Your task to perform on an android device: open app "Google Play services" (install if not already installed) Image 0: 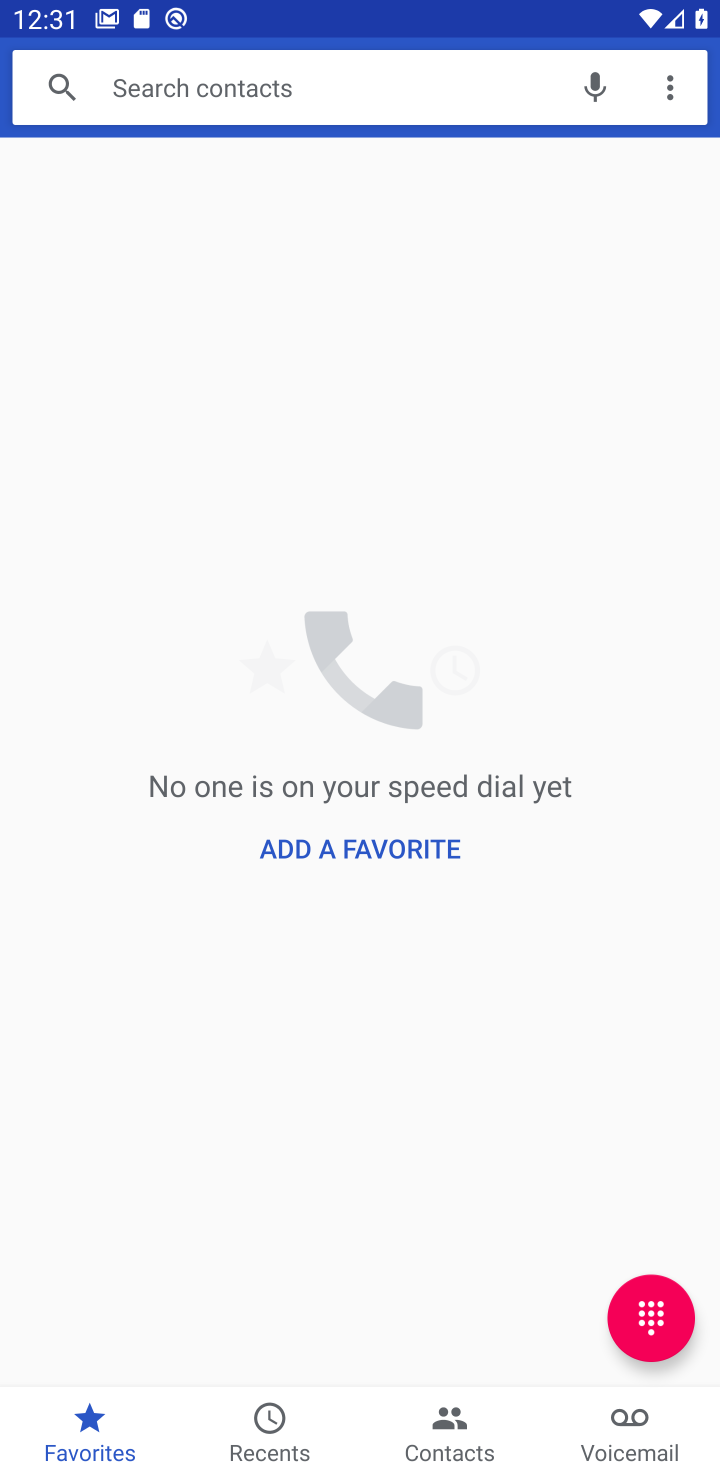
Step 0: press home button
Your task to perform on an android device: open app "Google Play services" (install if not already installed) Image 1: 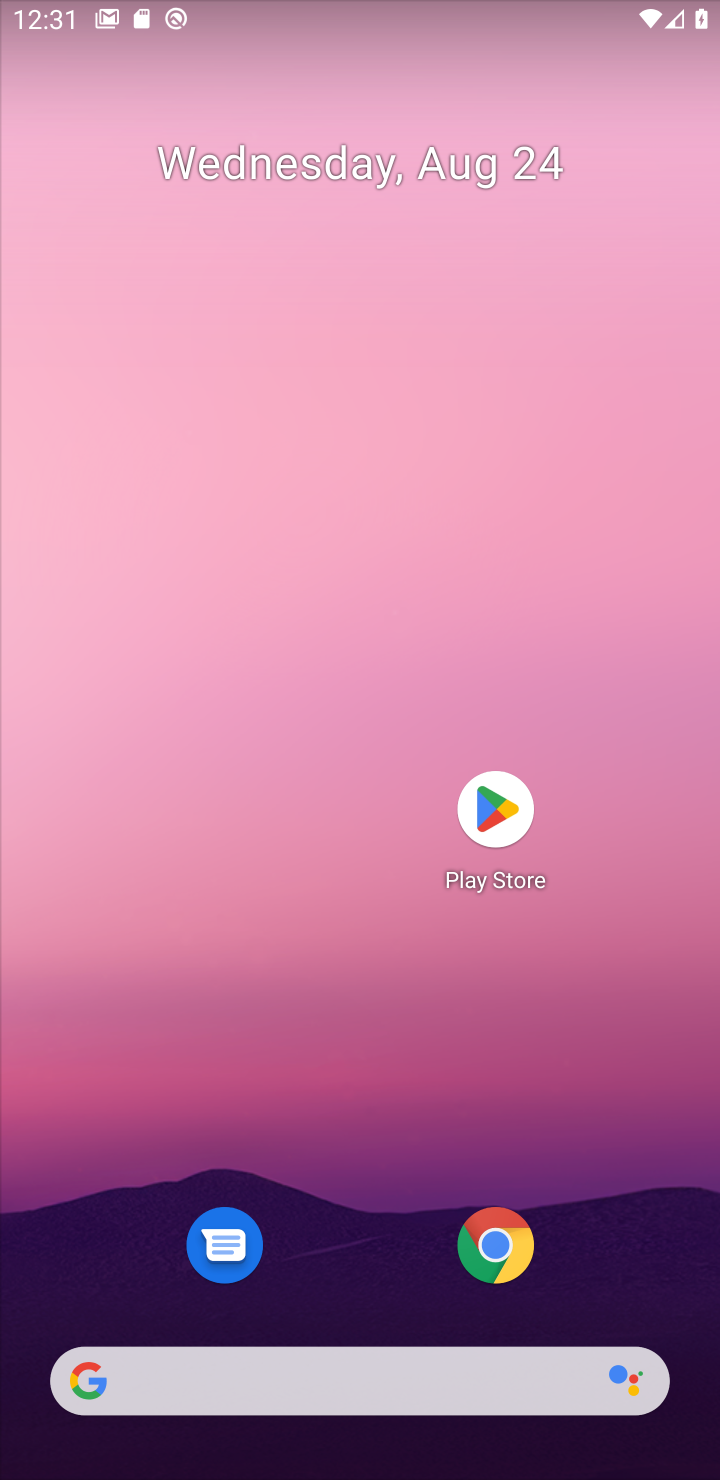
Step 1: click (487, 812)
Your task to perform on an android device: open app "Google Play services" (install if not already installed) Image 2: 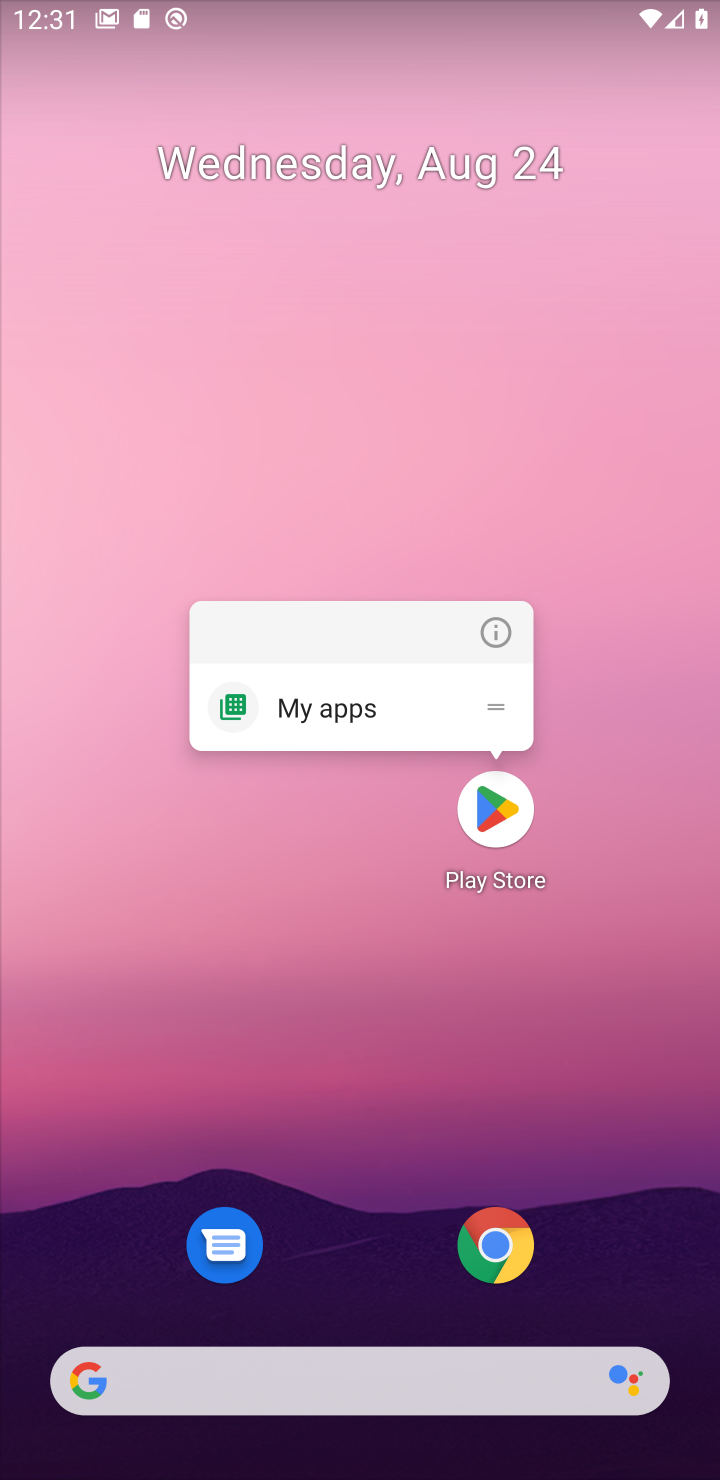
Step 2: click (487, 817)
Your task to perform on an android device: open app "Google Play services" (install if not already installed) Image 3: 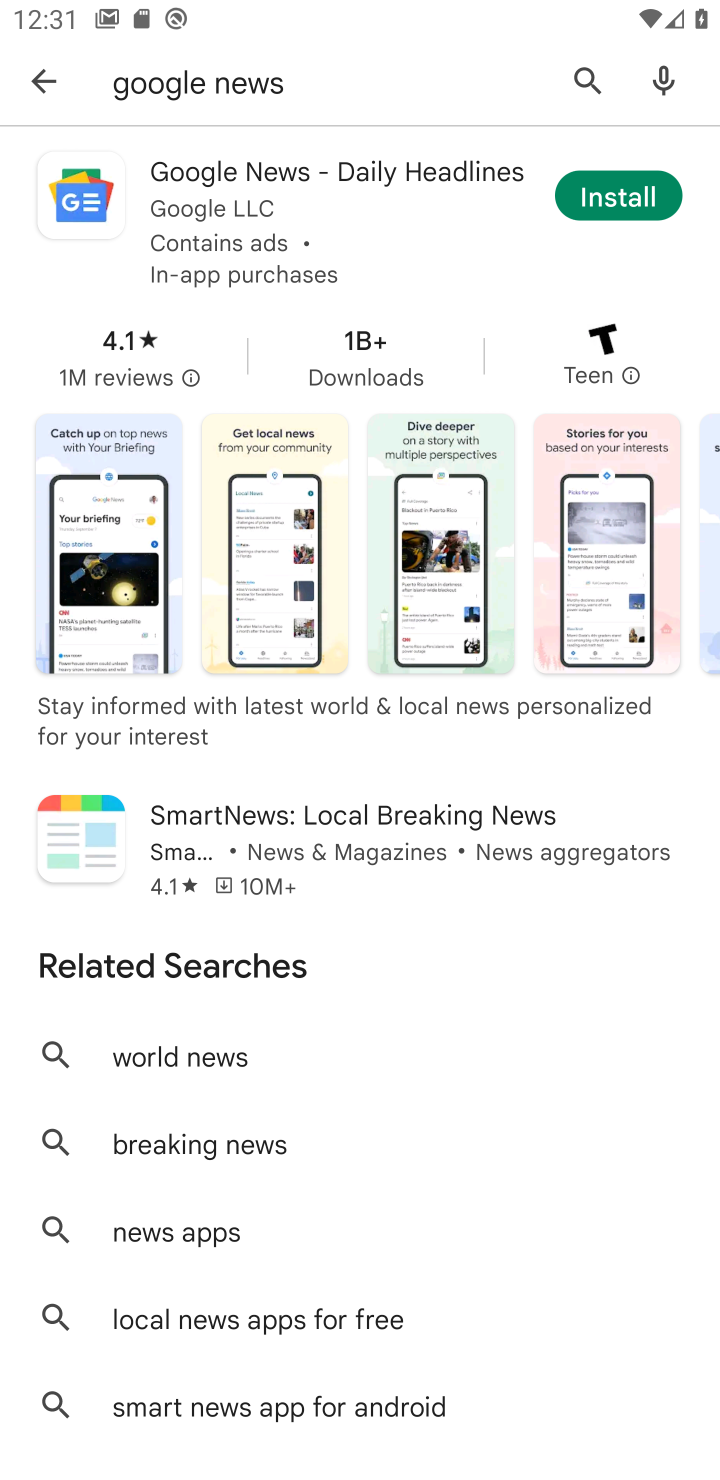
Step 3: click (582, 81)
Your task to perform on an android device: open app "Google Play services" (install if not already installed) Image 4: 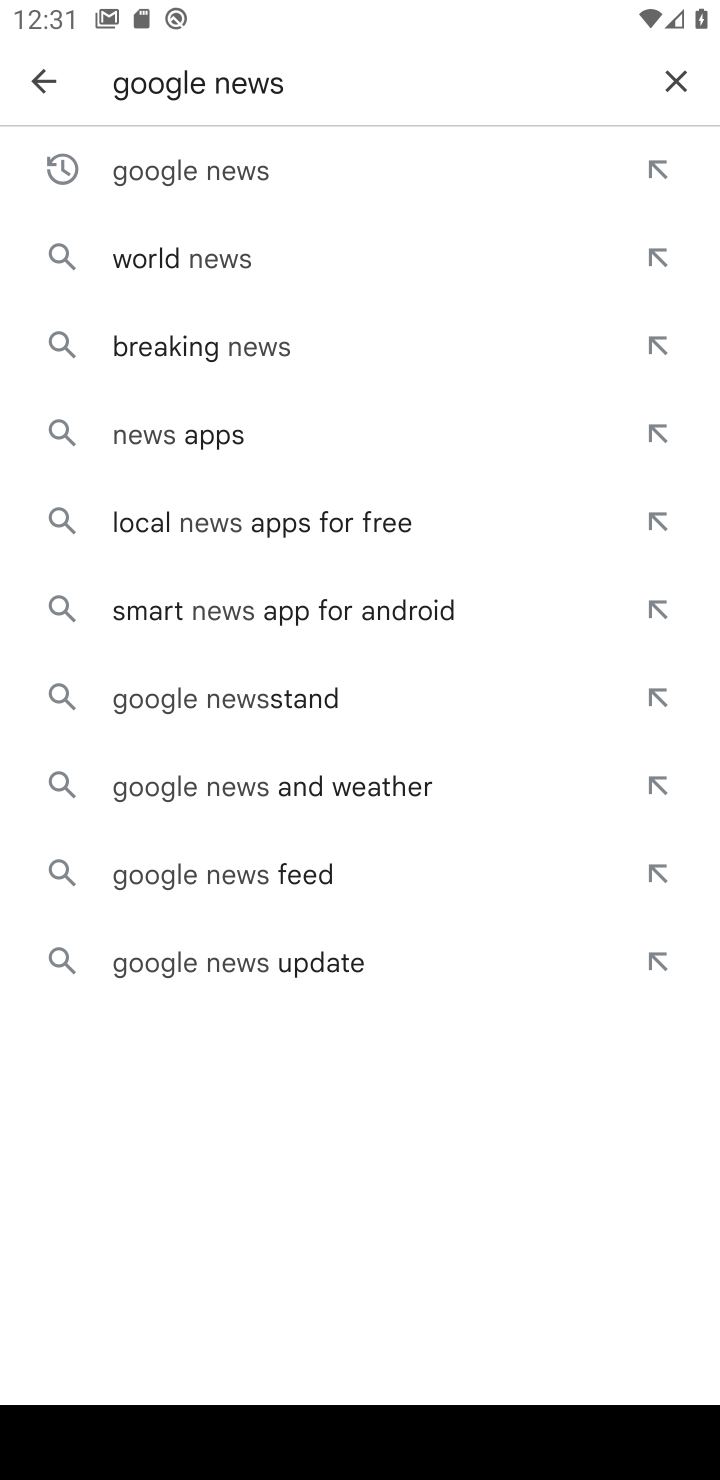
Step 4: click (671, 75)
Your task to perform on an android device: open app "Google Play services" (install if not already installed) Image 5: 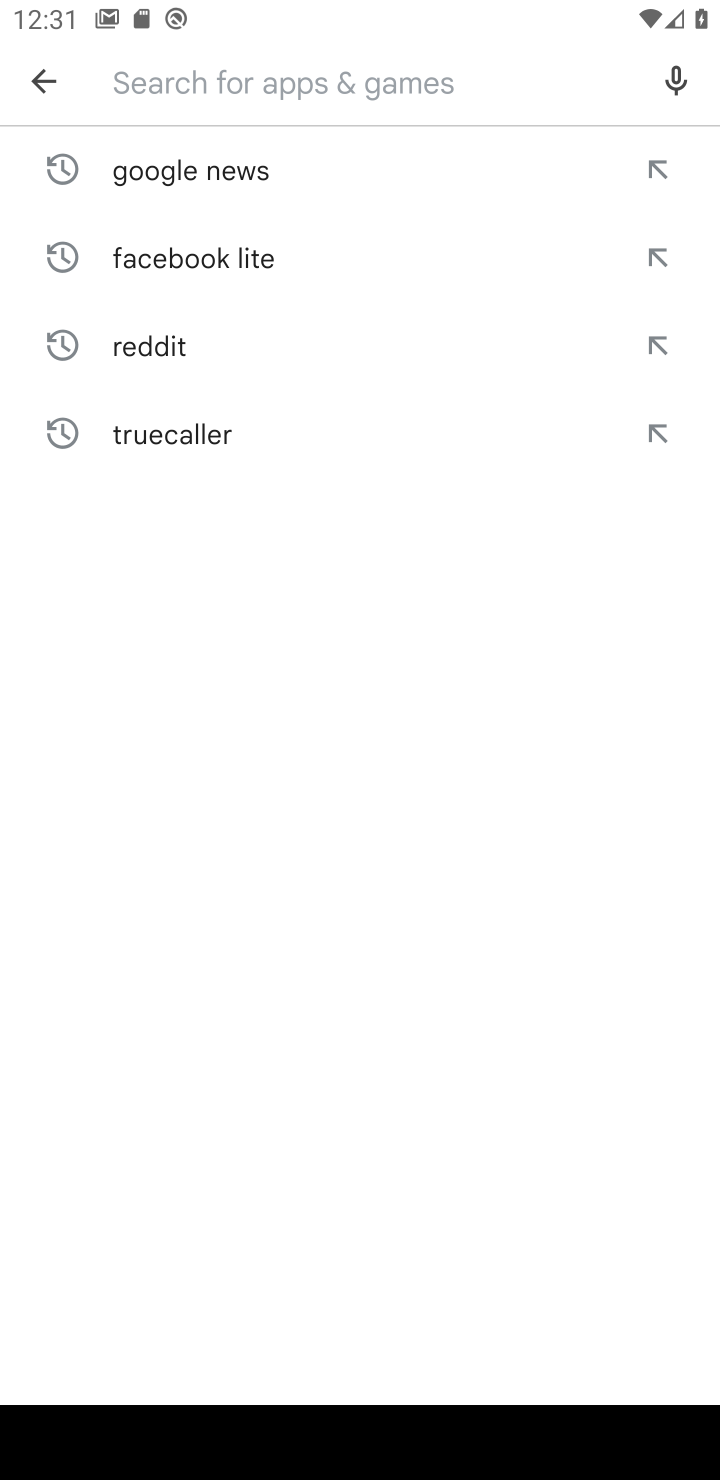
Step 5: type "Google Play services"
Your task to perform on an android device: open app "Google Play services" (install if not already installed) Image 6: 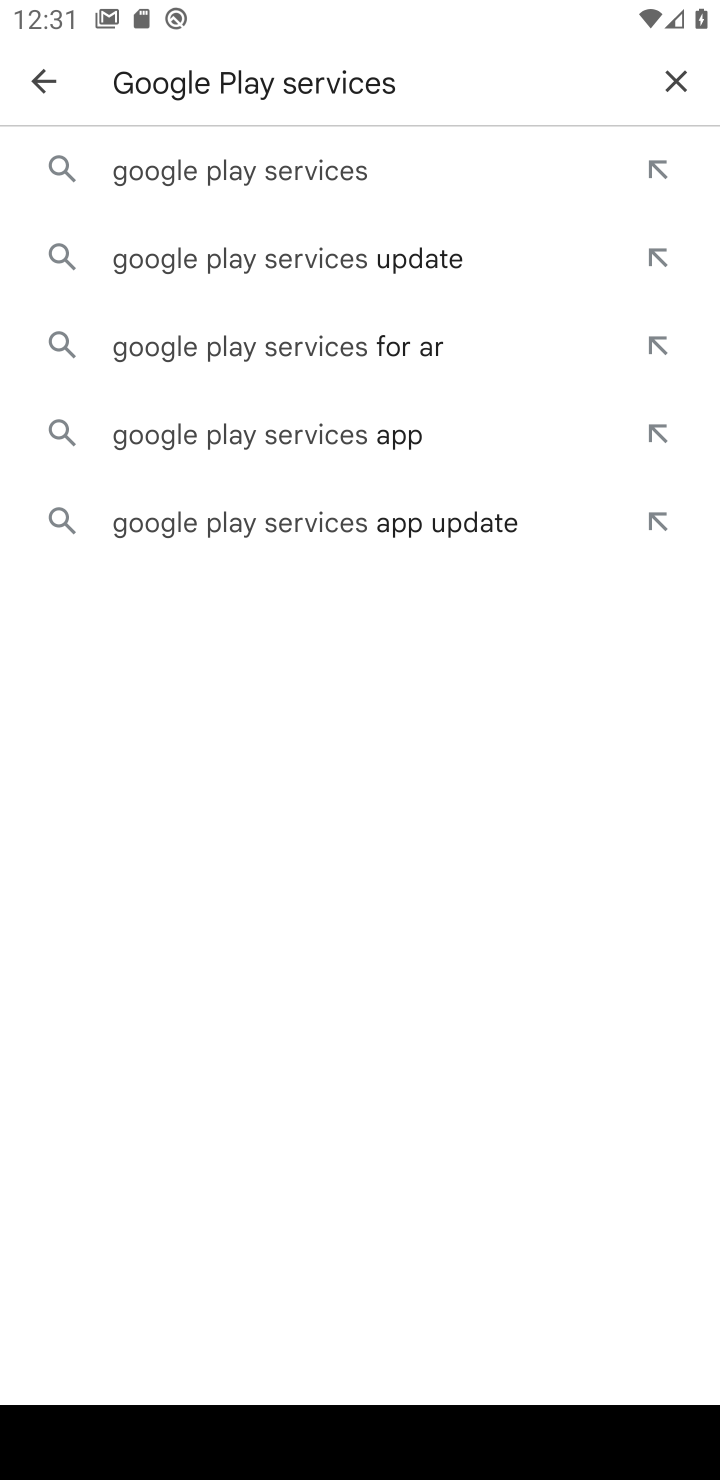
Step 6: click (268, 169)
Your task to perform on an android device: open app "Google Play services" (install if not already installed) Image 7: 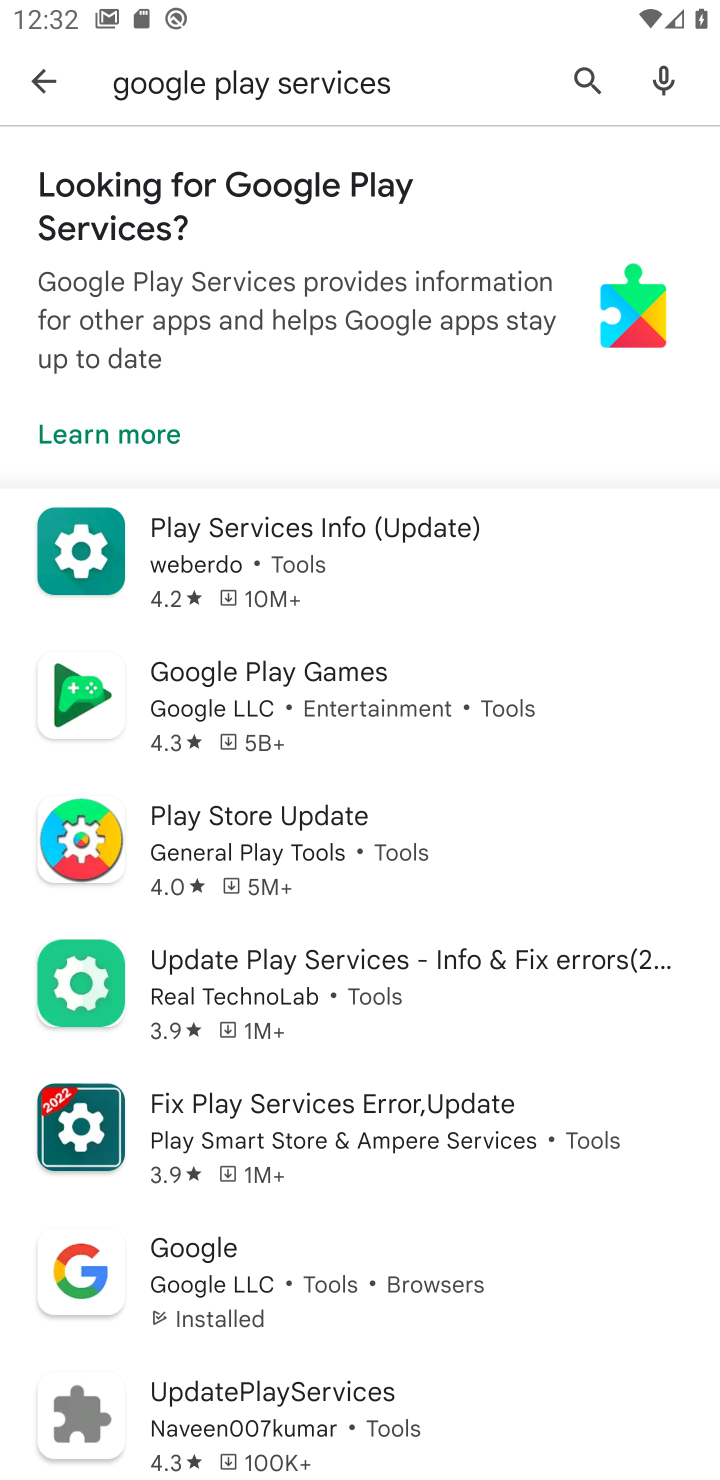
Step 7: task complete